Your task to perform on an android device: move an email to a new category in the gmail app Image 0: 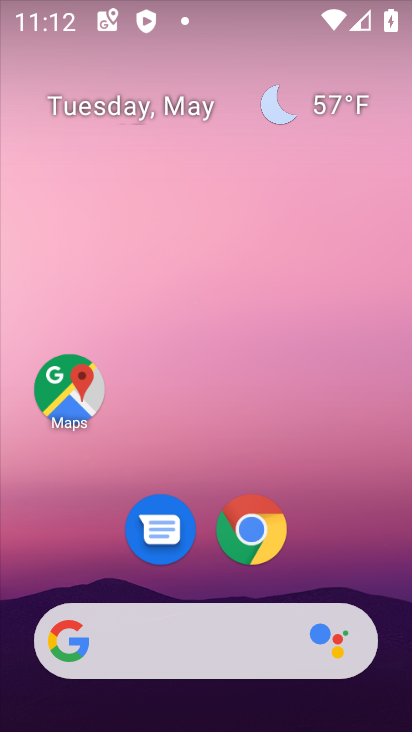
Step 0: drag from (206, 571) to (319, 5)
Your task to perform on an android device: move an email to a new category in the gmail app Image 1: 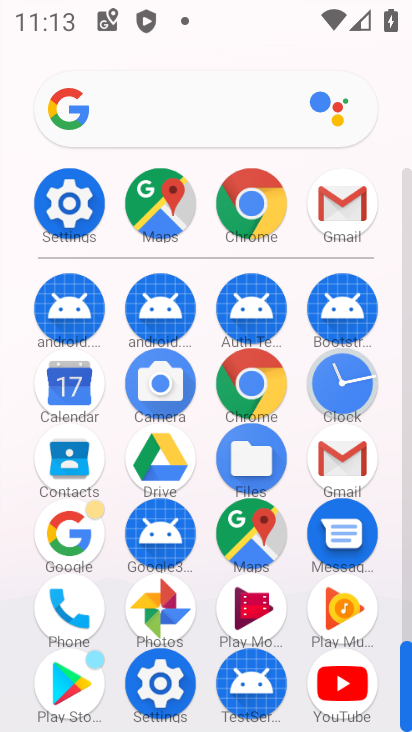
Step 1: click (342, 230)
Your task to perform on an android device: move an email to a new category in the gmail app Image 2: 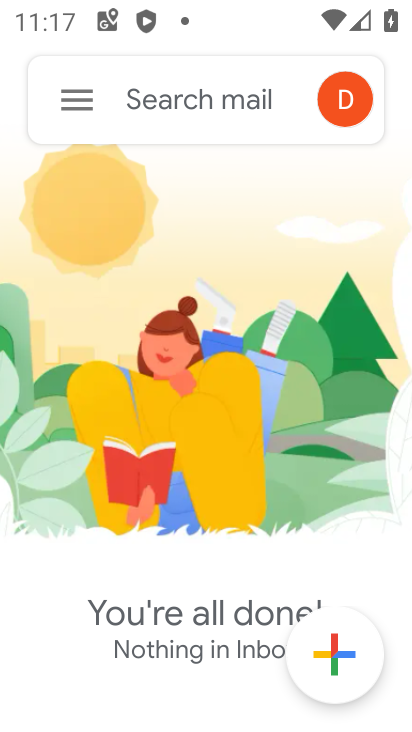
Step 2: task complete